Your task to perform on an android device: empty trash in google photos Image 0: 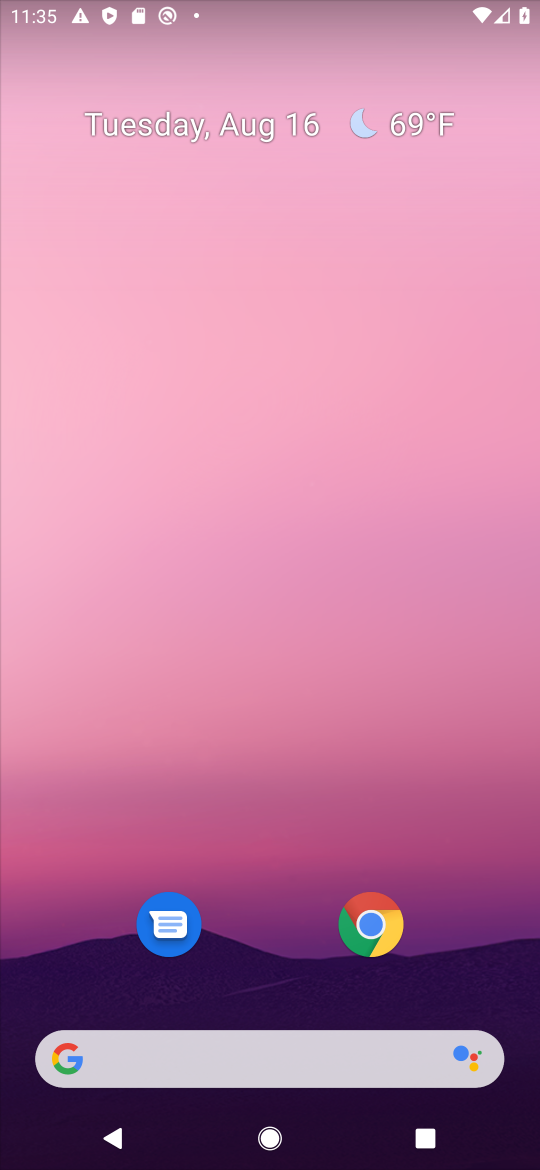
Step 0: drag from (277, 1011) to (274, 139)
Your task to perform on an android device: empty trash in google photos Image 1: 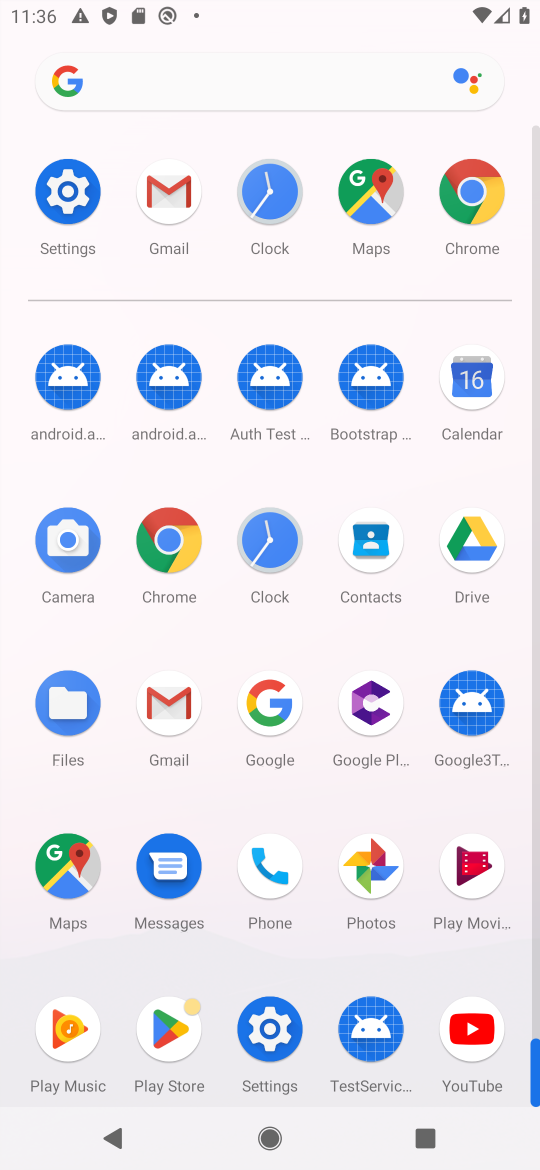
Step 1: click (373, 862)
Your task to perform on an android device: empty trash in google photos Image 2: 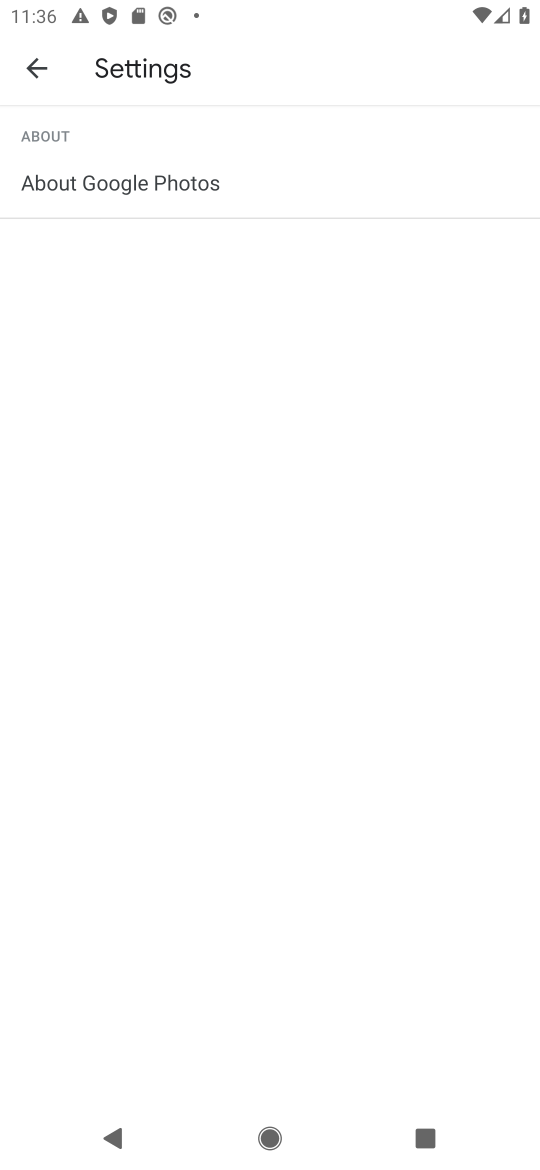
Step 2: click (51, 61)
Your task to perform on an android device: empty trash in google photos Image 3: 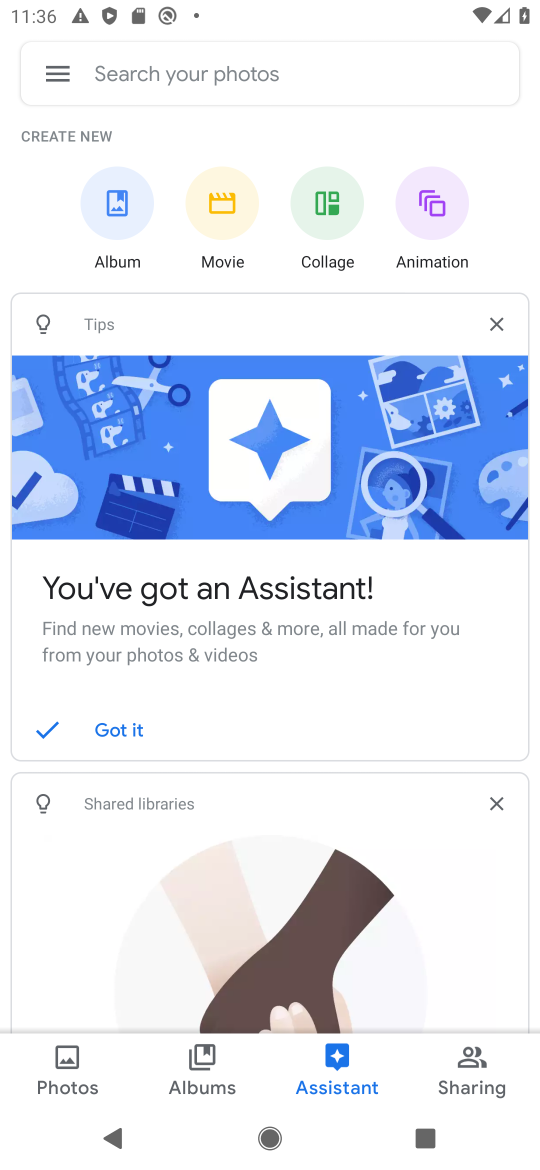
Step 3: click (57, 84)
Your task to perform on an android device: empty trash in google photos Image 4: 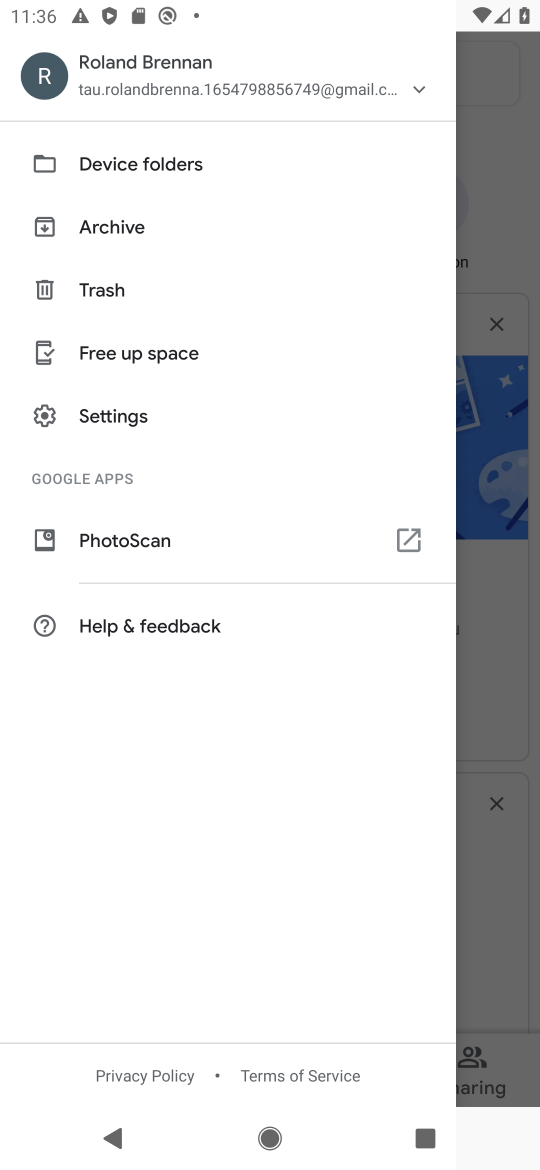
Step 4: click (135, 311)
Your task to perform on an android device: empty trash in google photos Image 5: 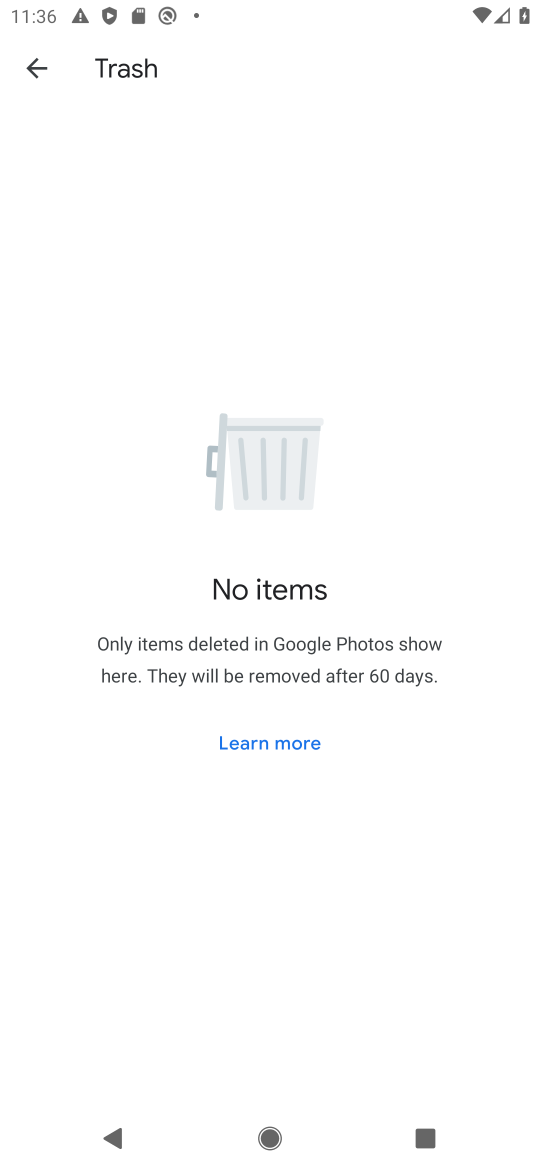
Step 5: task complete